Your task to perform on an android device: snooze an email in the gmail app Image 0: 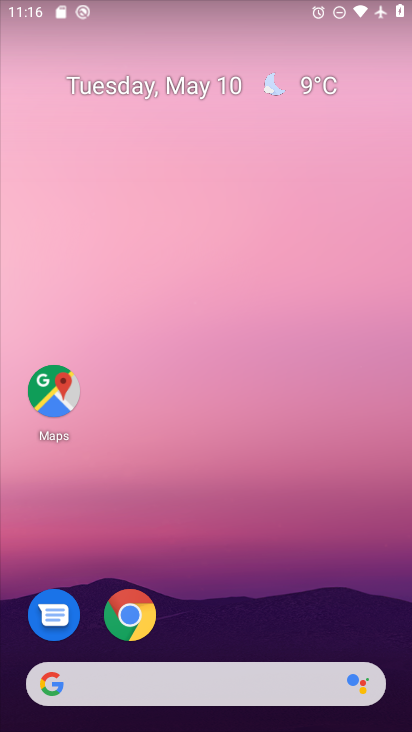
Step 0: drag from (385, 621) to (268, 57)
Your task to perform on an android device: snooze an email in the gmail app Image 1: 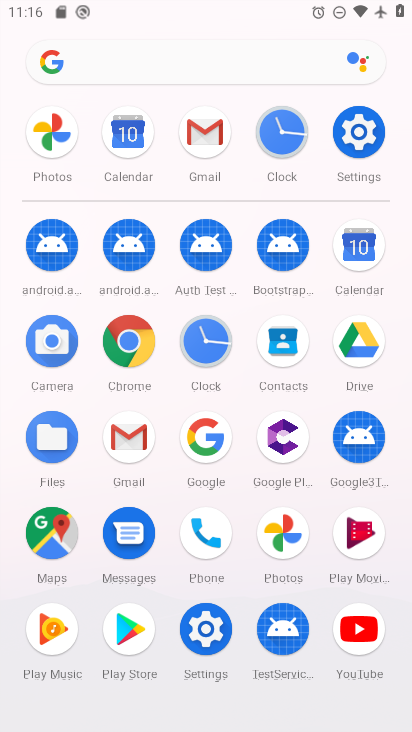
Step 1: click (127, 435)
Your task to perform on an android device: snooze an email in the gmail app Image 2: 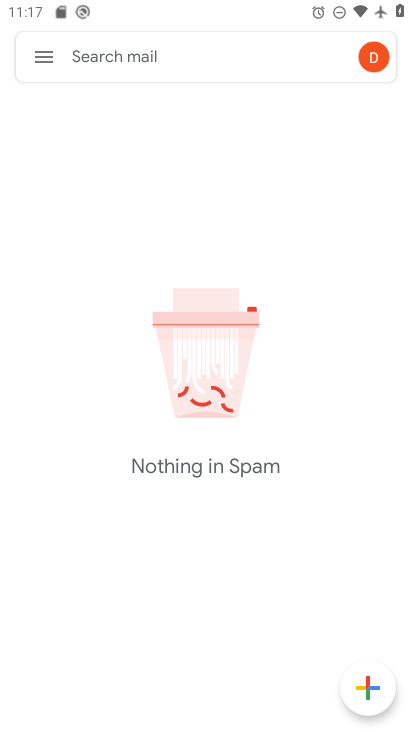
Step 2: click (39, 55)
Your task to perform on an android device: snooze an email in the gmail app Image 3: 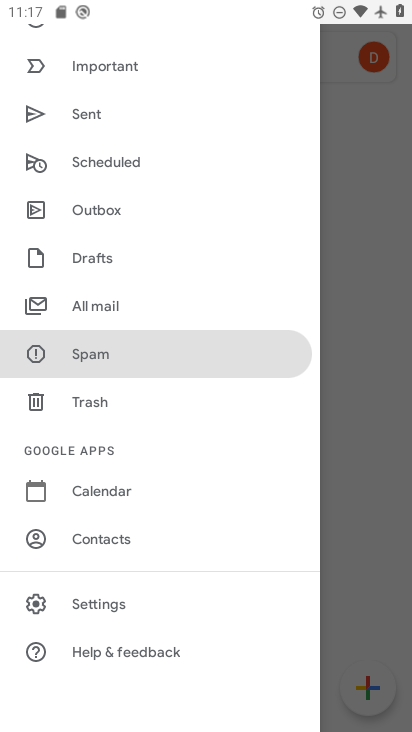
Step 3: click (101, 306)
Your task to perform on an android device: snooze an email in the gmail app Image 4: 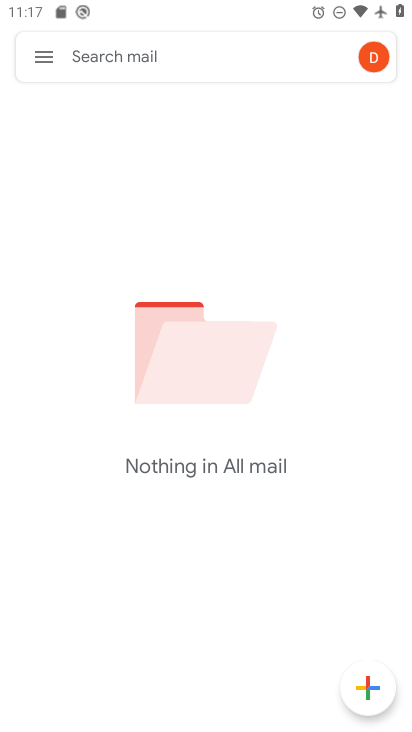
Step 4: task complete